Your task to perform on an android device: manage bookmarks in the chrome app Image 0: 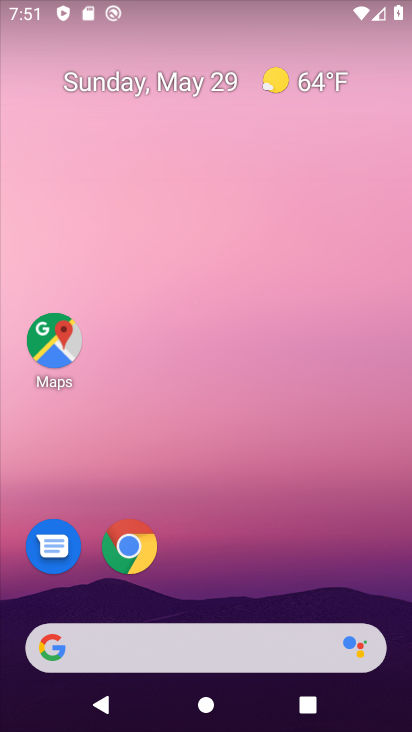
Step 0: click (127, 533)
Your task to perform on an android device: manage bookmarks in the chrome app Image 1: 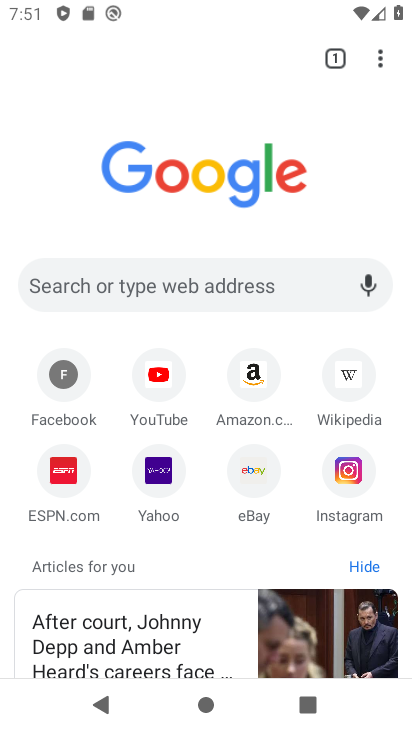
Step 1: click (393, 72)
Your task to perform on an android device: manage bookmarks in the chrome app Image 2: 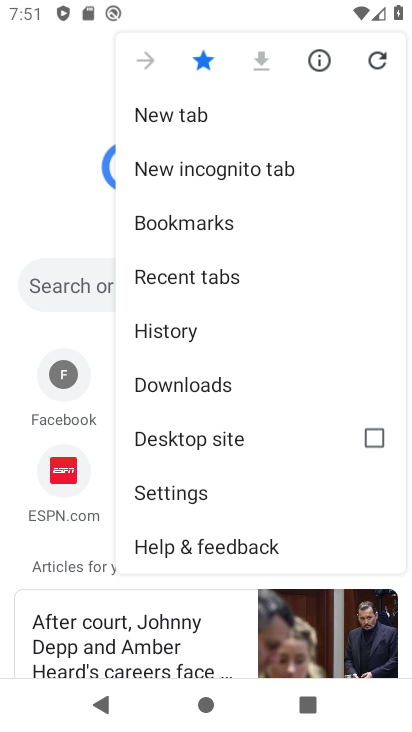
Step 2: click (294, 207)
Your task to perform on an android device: manage bookmarks in the chrome app Image 3: 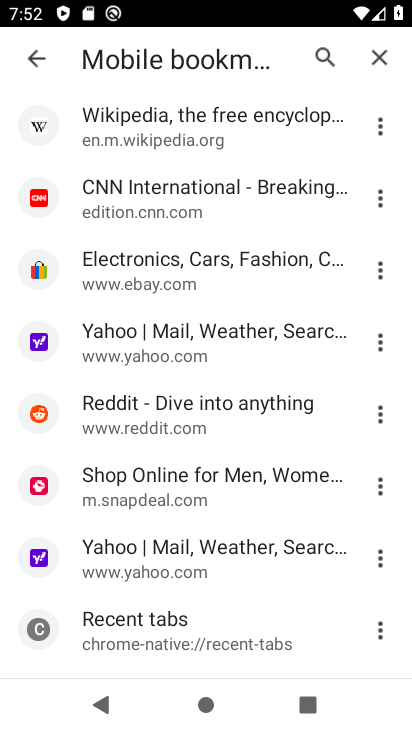
Step 3: click (283, 255)
Your task to perform on an android device: manage bookmarks in the chrome app Image 4: 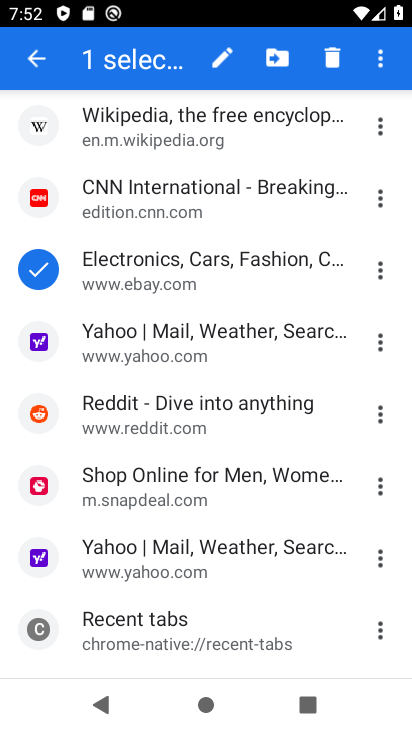
Step 4: click (292, 52)
Your task to perform on an android device: manage bookmarks in the chrome app Image 5: 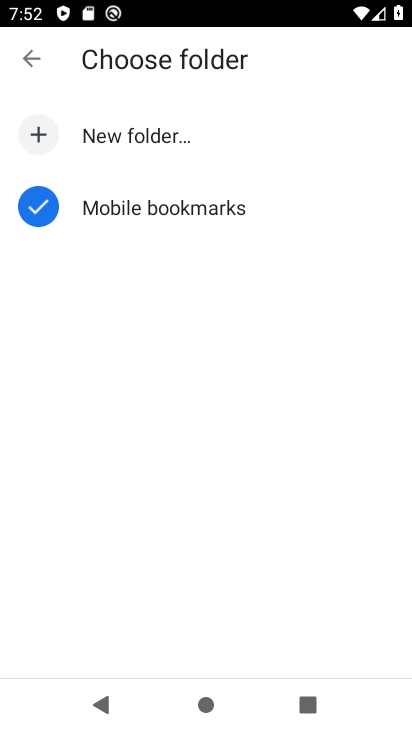
Step 5: click (234, 121)
Your task to perform on an android device: manage bookmarks in the chrome app Image 6: 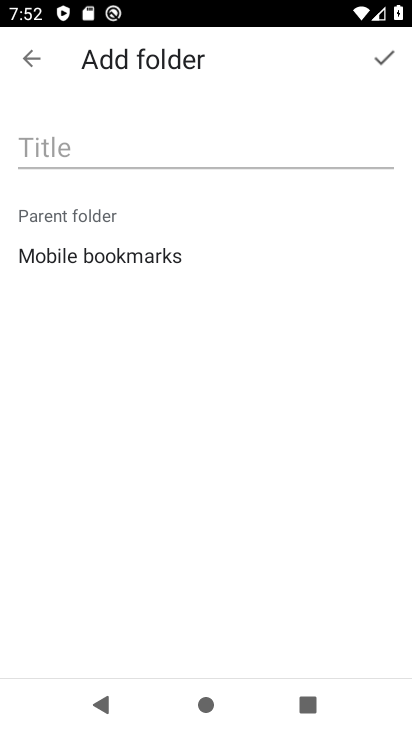
Step 6: click (219, 152)
Your task to perform on an android device: manage bookmarks in the chrome app Image 7: 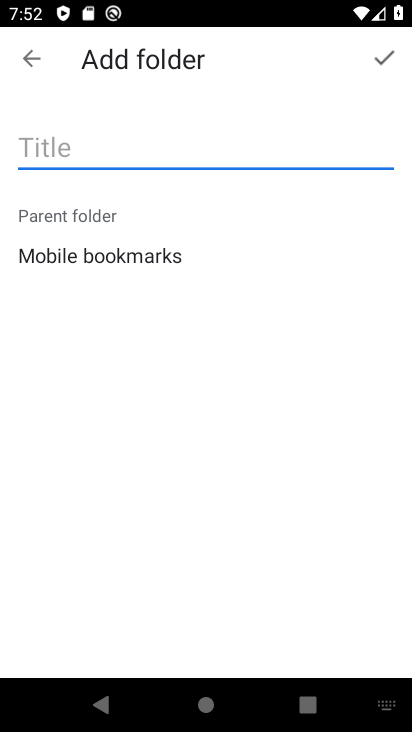
Step 7: type "sdfdsf"
Your task to perform on an android device: manage bookmarks in the chrome app Image 8: 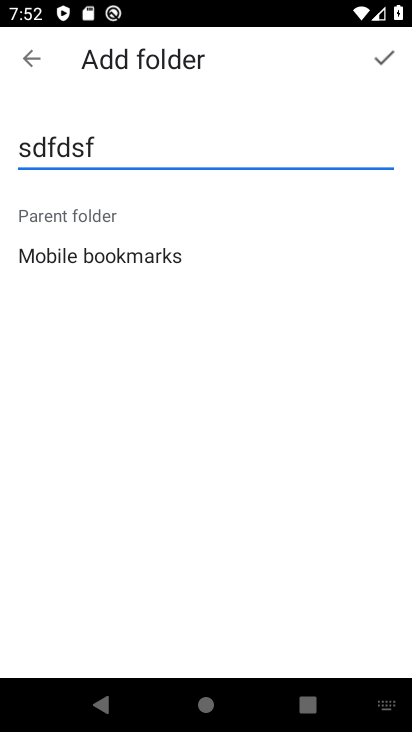
Step 8: click (395, 63)
Your task to perform on an android device: manage bookmarks in the chrome app Image 9: 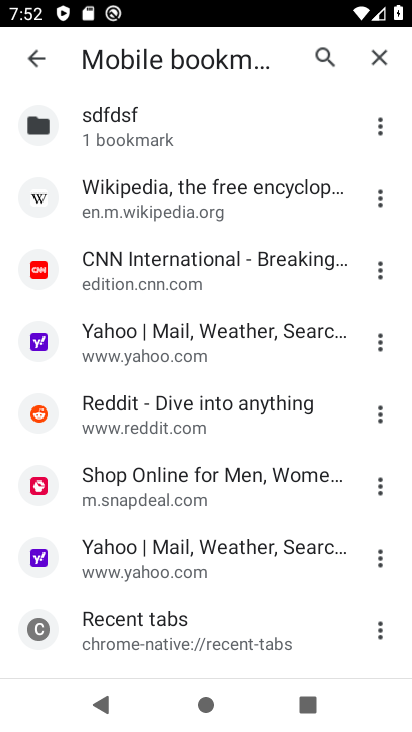
Step 9: task complete